Your task to perform on an android device: toggle translation in the chrome app Image 0: 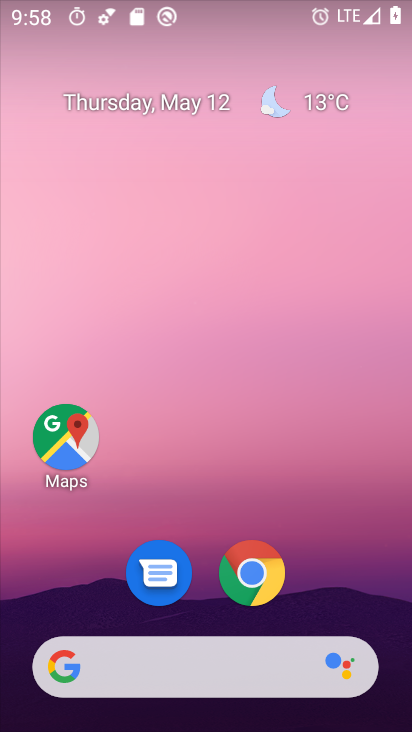
Step 0: click (257, 580)
Your task to perform on an android device: toggle translation in the chrome app Image 1: 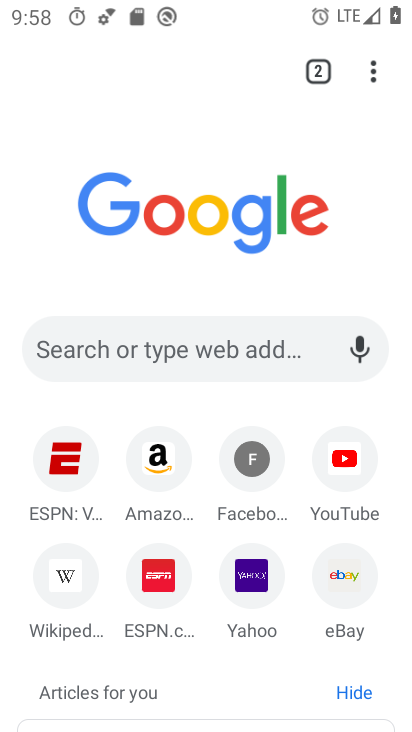
Step 1: click (372, 69)
Your task to perform on an android device: toggle translation in the chrome app Image 2: 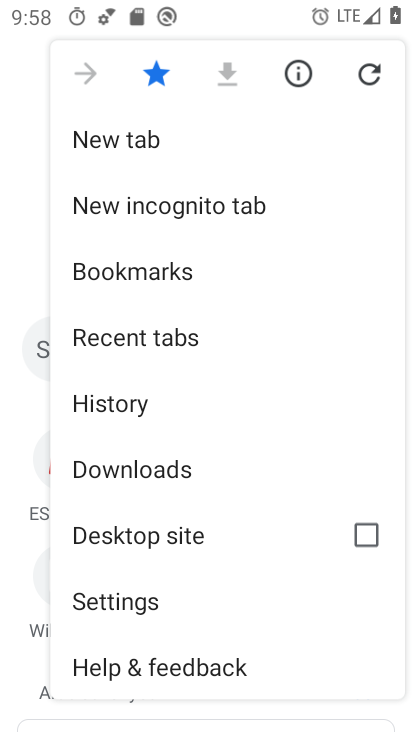
Step 2: drag from (278, 633) to (287, 306)
Your task to perform on an android device: toggle translation in the chrome app Image 3: 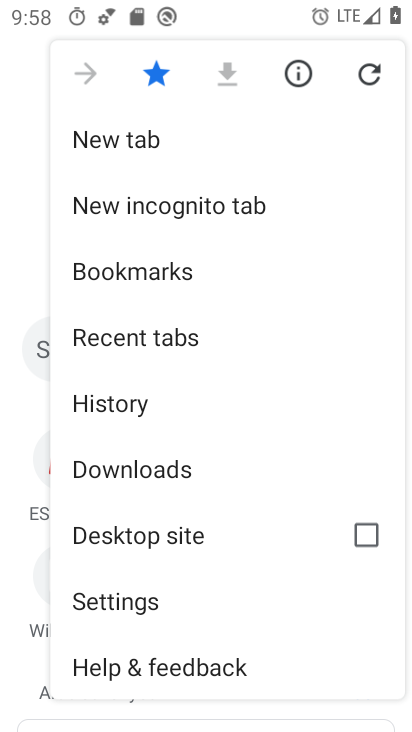
Step 3: click (117, 595)
Your task to perform on an android device: toggle translation in the chrome app Image 4: 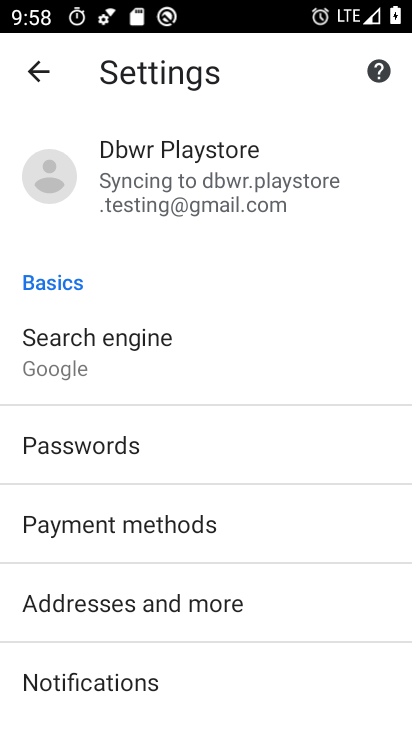
Step 4: drag from (242, 624) to (256, 328)
Your task to perform on an android device: toggle translation in the chrome app Image 5: 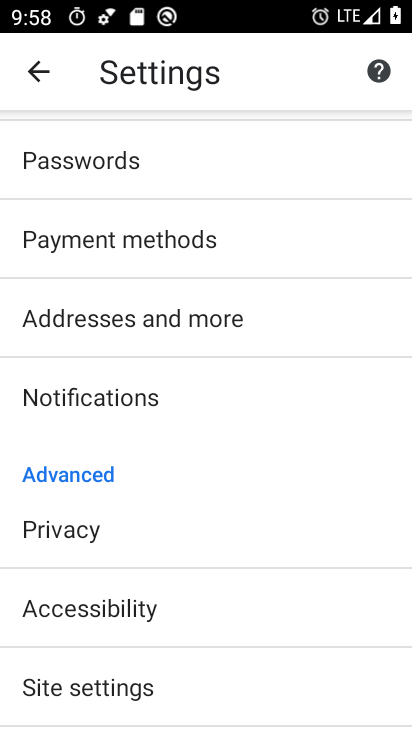
Step 5: drag from (202, 651) to (214, 372)
Your task to perform on an android device: toggle translation in the chrome app Image 6: 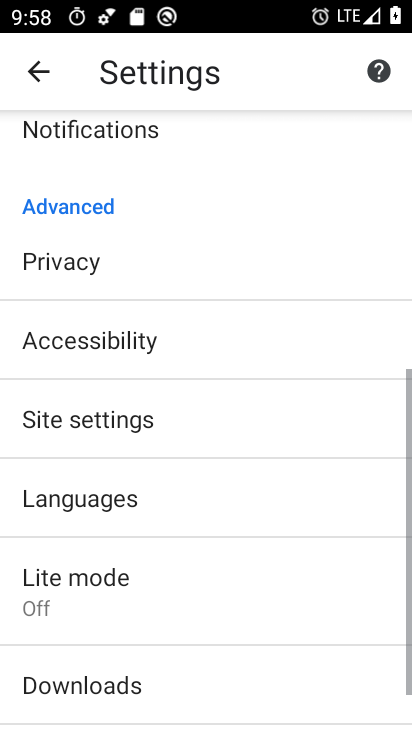
Step 6: drag from (272, 639) to (263, 440)
Your task to perform on an android device: toggle translation in the chrome app Image 7: 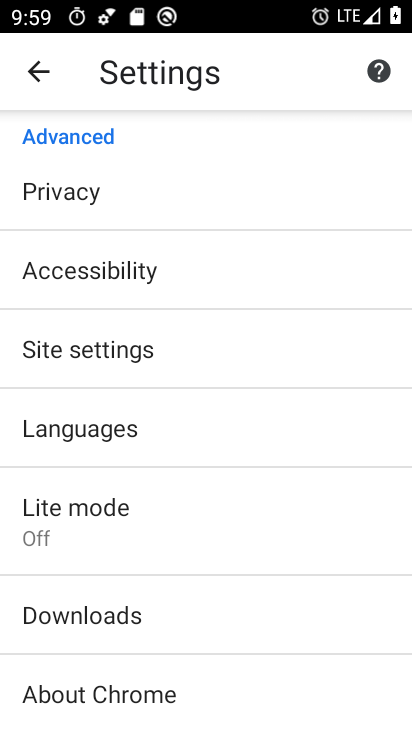
Step 7: click (89, 439)
Your task to perform on an android device: toggle translation in the chrome app Image 8: 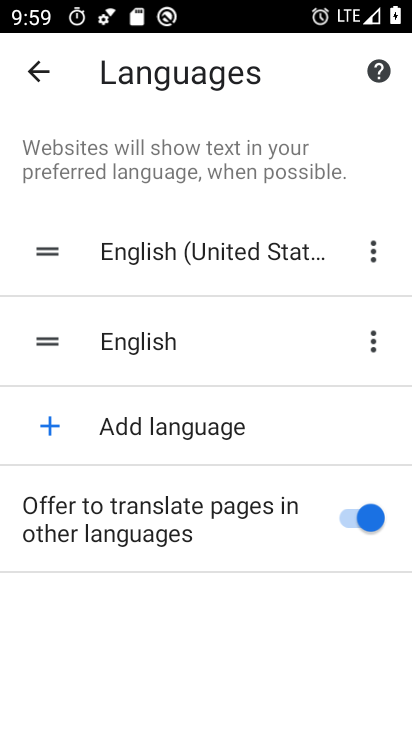
Step 8: click (343, 517)
Your task to perform on an android device: toggle translation in the chrome app Image 9: 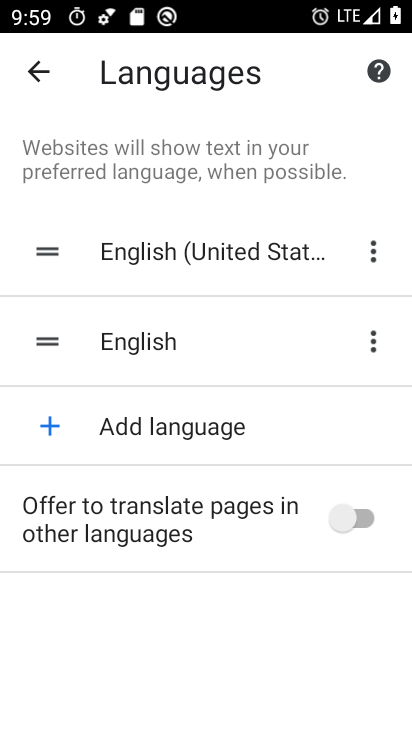
Step 9: task complete